Your task to perform on an android device: What's the weather? Image 0: 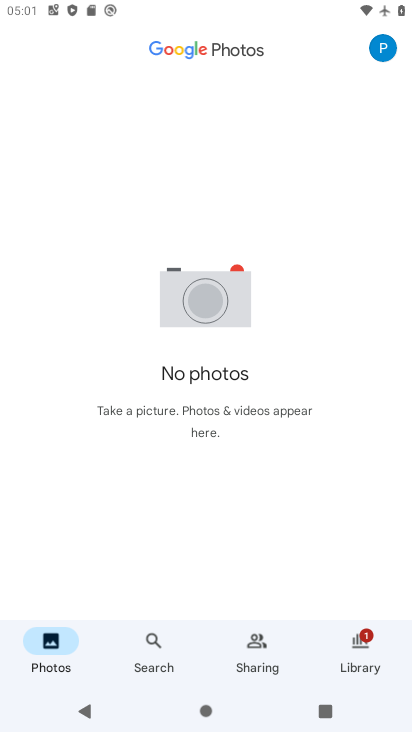
Step 0: drag from (334, 552) to (199, 21)
Your task to perform on an android device: What's the weather? Image 1: 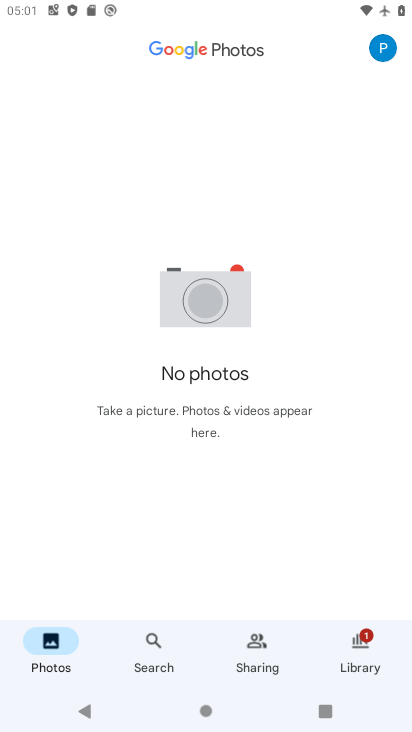
Step 1: press home button
Your task to perform on an android device: What's the weather? Image 2: 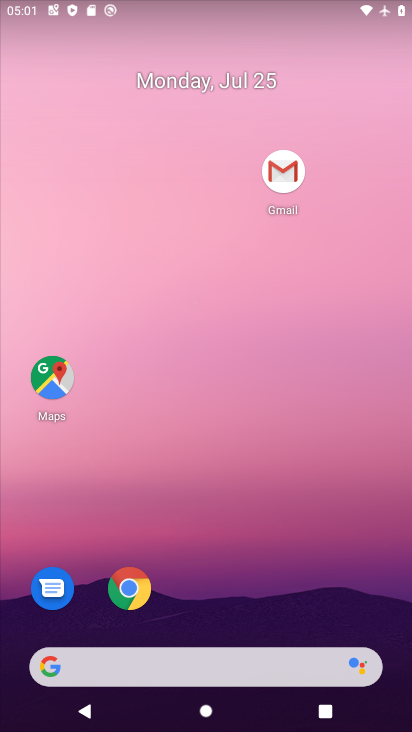
Step 2: drag from (276, 547) to (269, 18)
Your task to perform on an android device: What's the weather? Image 3: 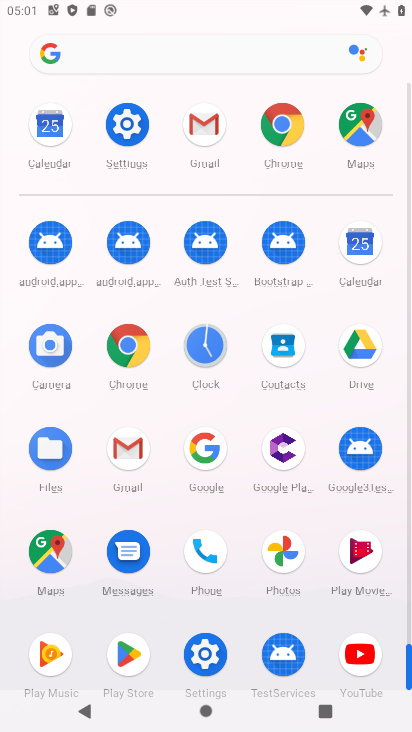
Step 3: click (281, 119)
Your task to perform on an android device: What's the weather? Image 4: 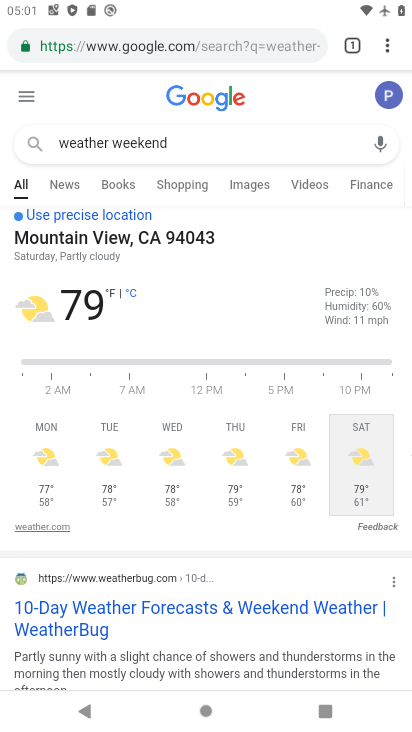
Step 4: click (34, 442)
Your task to perform on an android device: What's the weather? Image 5: 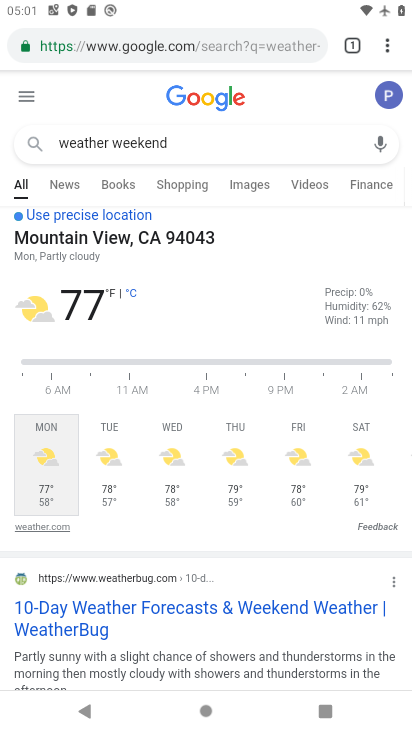
Step 5: task complete